Your task to perform on an android device: make emails show in primary in the gmail app Image 0: 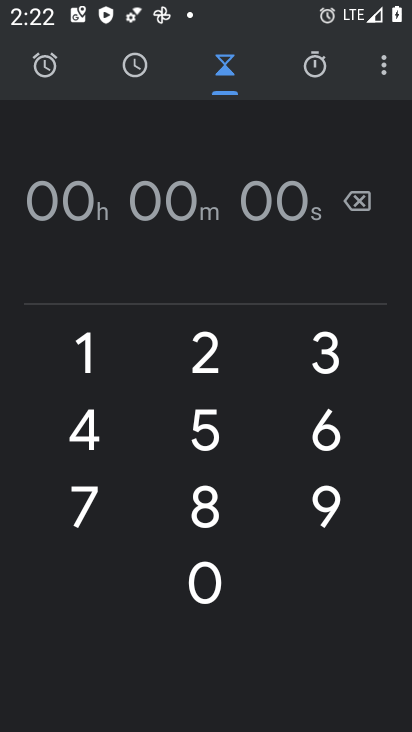
Step 0: press home button
Your task to perform on an android device: make emails show in primary in the gmail app Image 1: 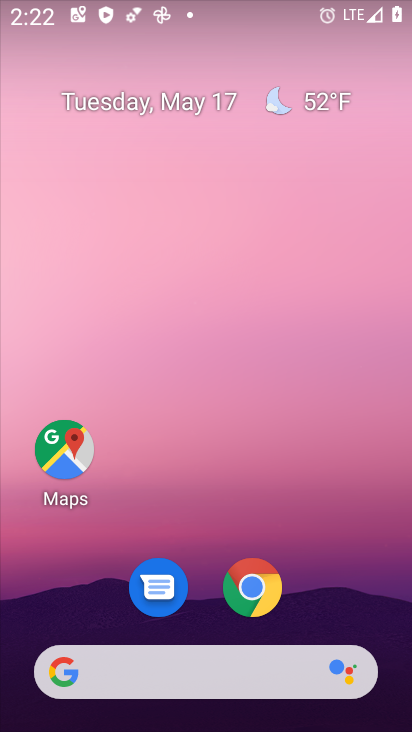
Step 1: drag from (321, 597) to (313, 218)
Your task to perform on an android device: make emails show in primary in the gmail app Image 2: 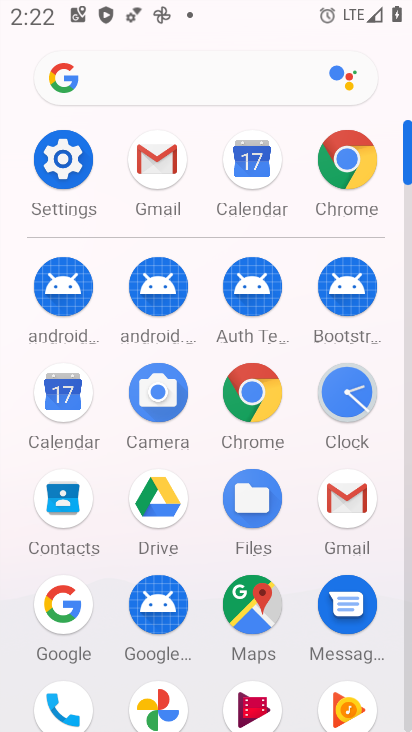
Step 2: click (156, 188)
Your task to perform on an android device: make emails show in primary in the gmail app Image 3: 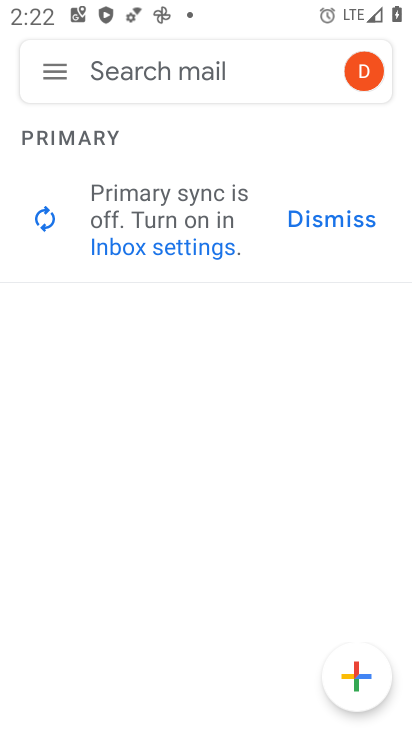
Step 3: click (45, 80)
Your task to perform on an android device: make emails show in primary in the gmail app Image 4: 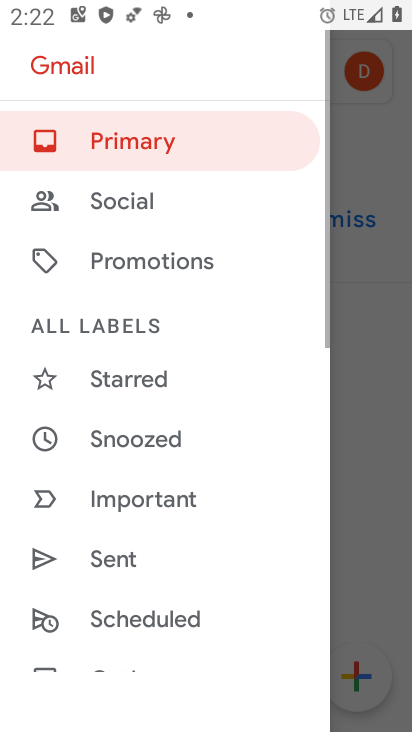
Step 4: drag from (80, 452) to (159, 75)
Your task to perform on an android device: make emails show in primary in the gmail app Image 5: 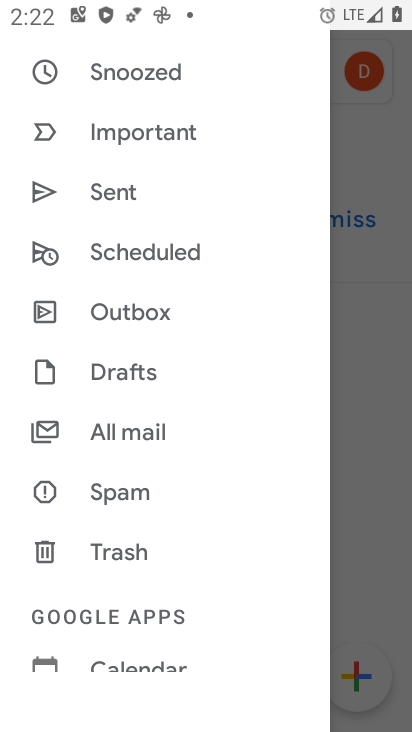
Step 5: drag from (111, 627) to (112, 193)
Your task to perform on an android device: make emails show in primary in the gmail app Image 6: 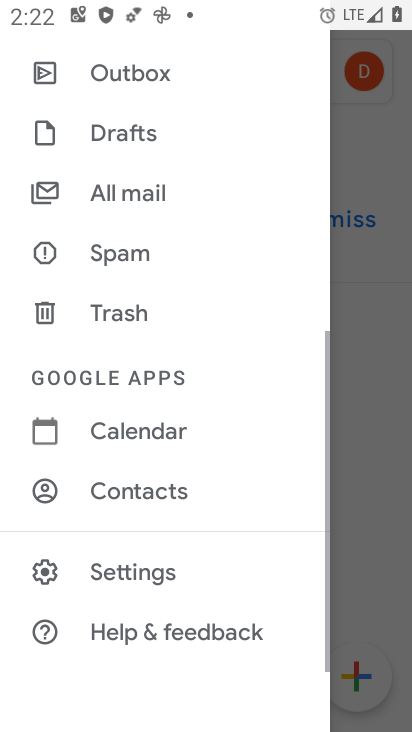
Step 6: click (89, 554)
Your task to perform on an android device: make emails show in primary in the gmail app Image 7: 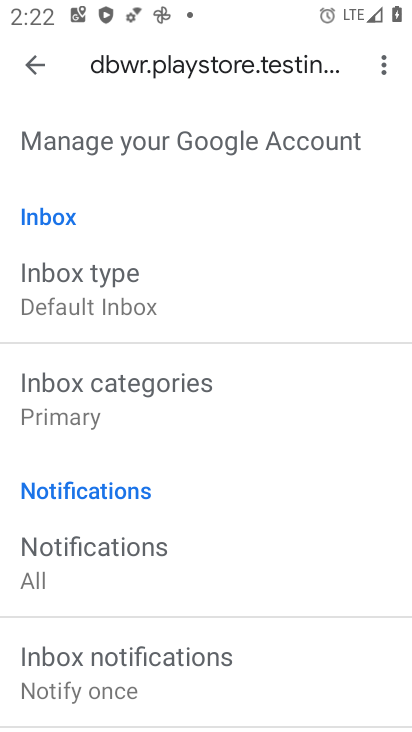
Step 7: drag from (116, 576) to (150, 225)
Your task to perform on an android device: make emails show in primary in the gmail app Image 8: 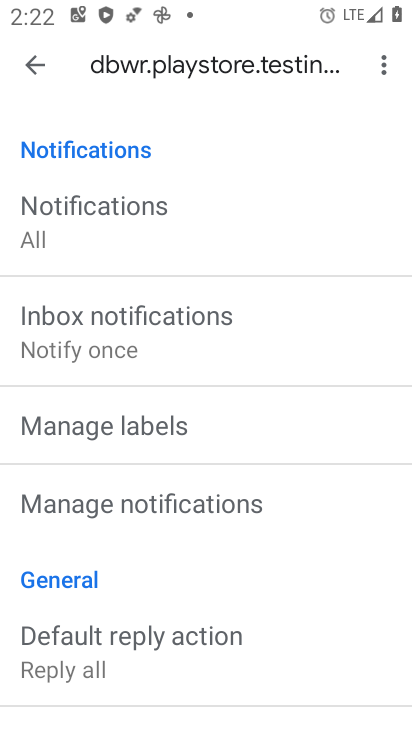
Step 8: drag from (150, 225) to (140, 543)
Your task to perform on an android device: make emails show in primary in the gmail app Image 9: 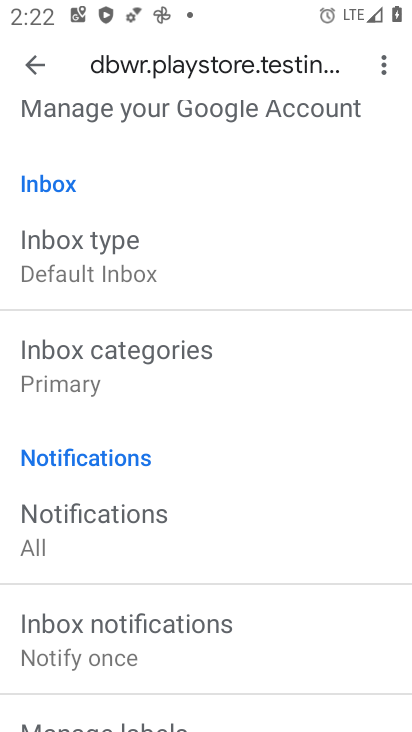
Step 9: click (230, 230)
Your task to perform on an android device: make emails show in primary in the gmail app Image 10: 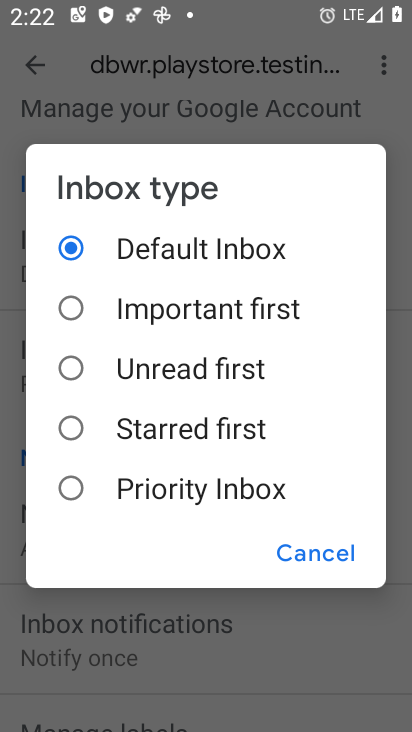
Step 10: click (166, 481)
Your task to perform on an android device: make emails show in primary in the gmail app Image 11: 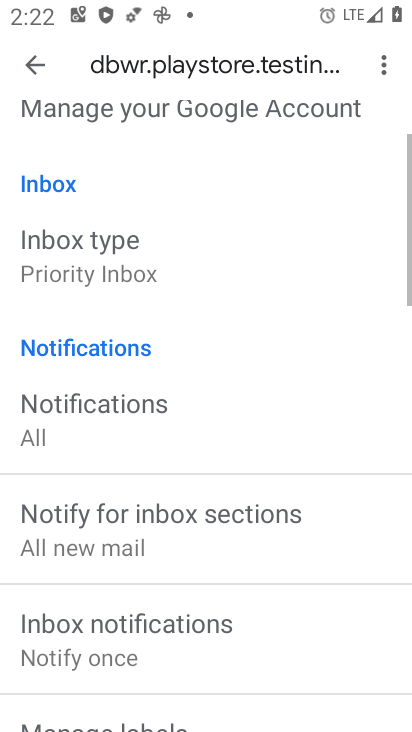
Step 11: task complete